Your task to perform on an android device: change your default location settings in chrome Image 0: 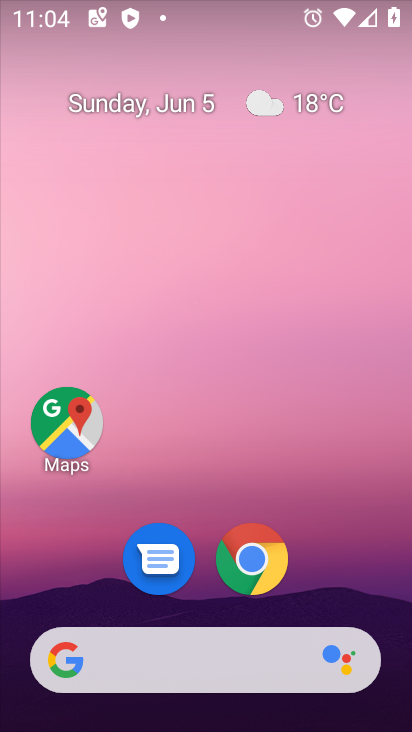
Step 0: click (248, 566)
Your task to perform on an android device: change your default location settings in chrome Image 1: 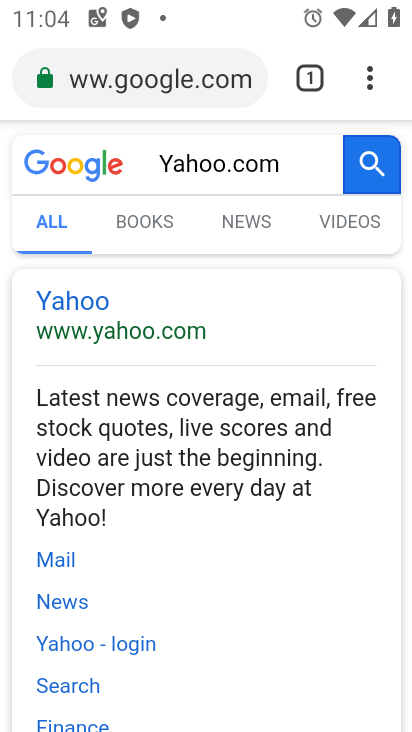
Step 1: click (373, 69)
Your task to perform on an android device: change your default location settings in chrome Image 2: 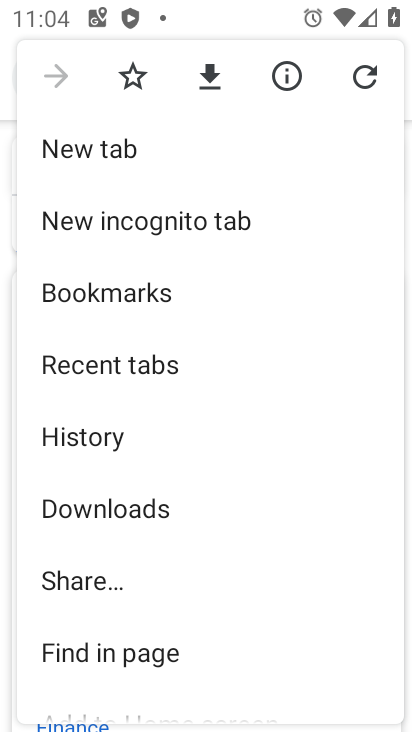
Step 2: drag from (220, 659) to (248, 263)
Your task to perform on an android device: change your default location settings in chrome Image 3: 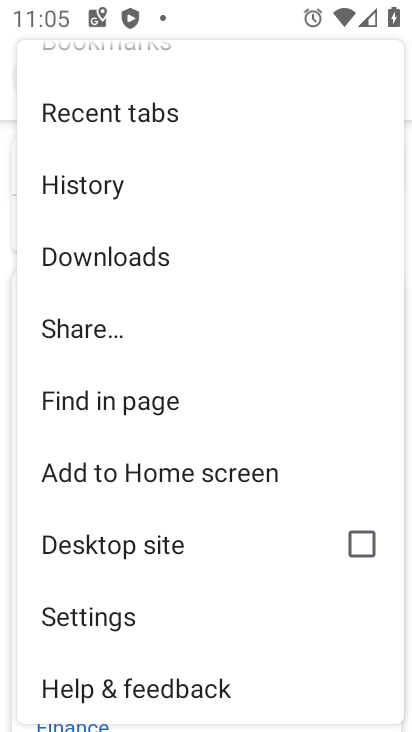
Step 3: click (89, 622)
Your task to perform on an android device: change your default location settings in chrome Image 4: 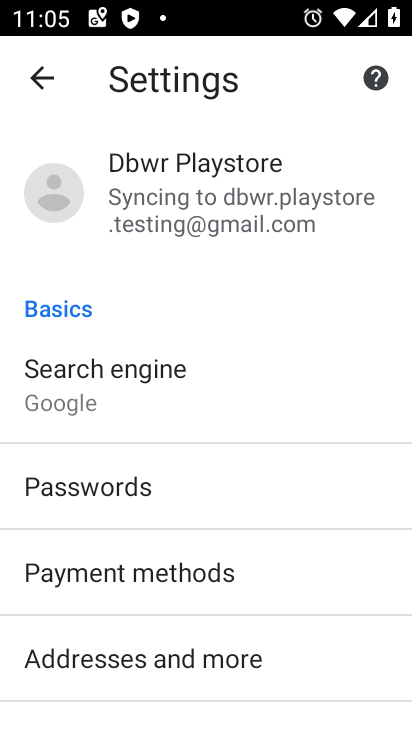
Step 4: drag from (296, 599) to (292, 255)
Your task to perform on an android device: change your default location settings in chrome Image 5: 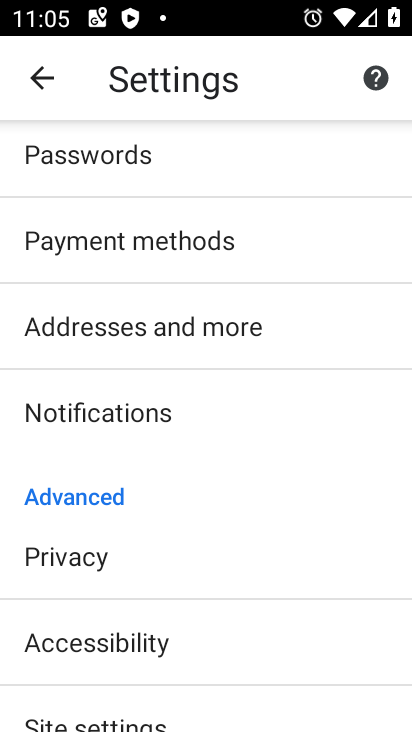
Step 5: drag from (175, 672) to (191, 371)
Your task to perform on an android device: change your default location settings in chrome Image 6: 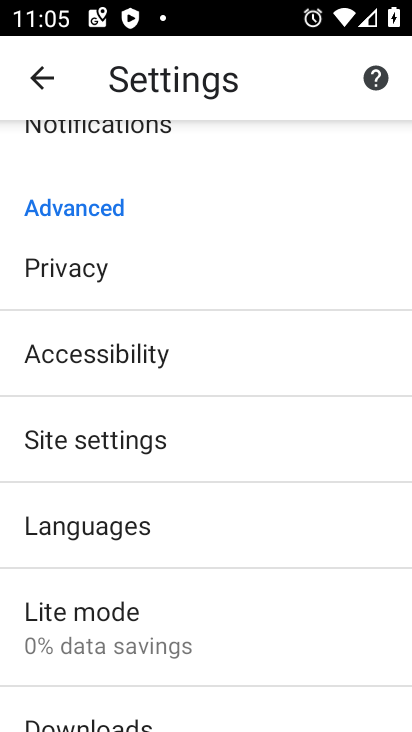
Step 6: click (131, 435)
Your task to perform on an android device: change your default location settings in chrome Image 7: 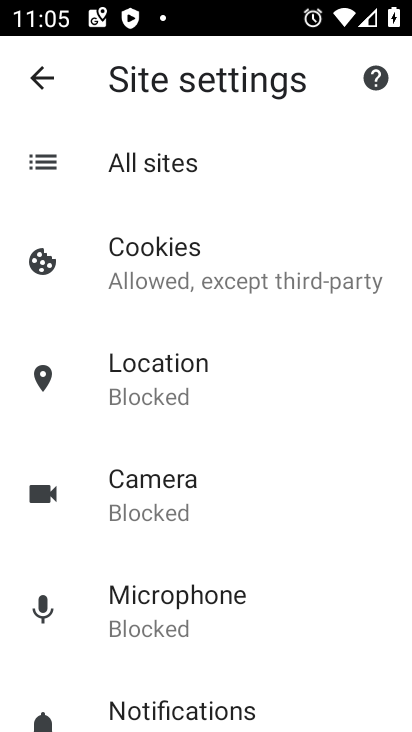
Step 7: click (175, 374)
Your task to perform on an android device: change your default location settings in chrome Image 8: 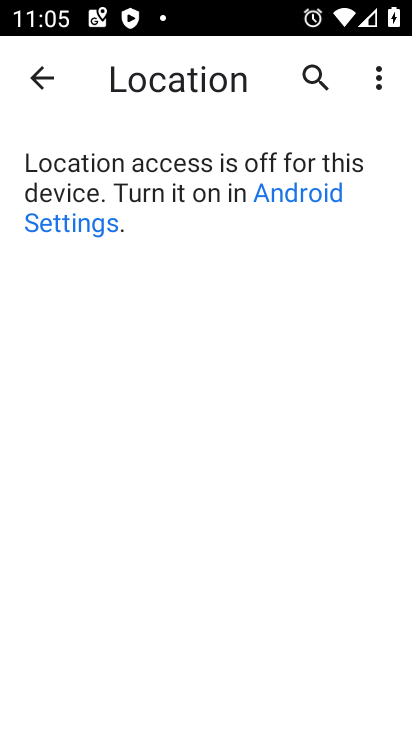
Step 8: click (44, 71)
Your task to perform on an android device: change your default location settings in chrome Image 9: 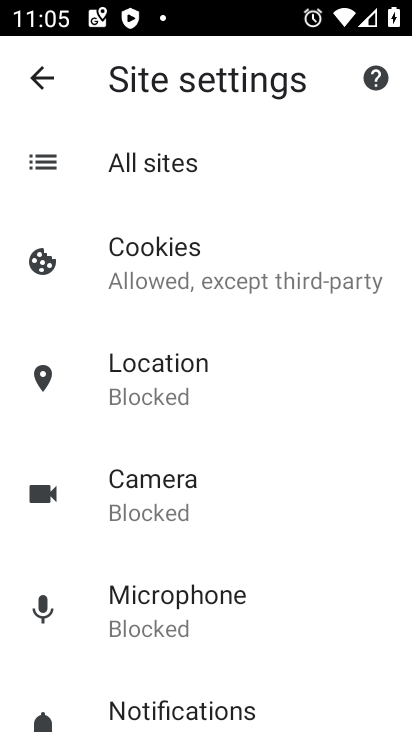
Step 9: click (158, 374)
Your task to perform on an android device: change your default location settings in chrome Image 10: 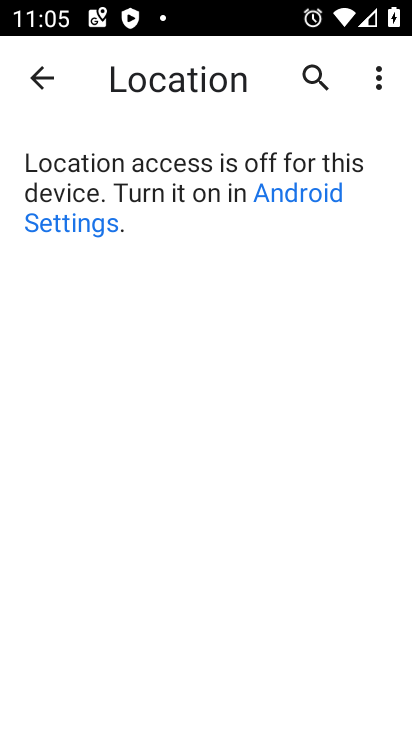
Step 10: click (376, 69)
Your task to perform on an android device: change your default location settings in chrome Image 11: 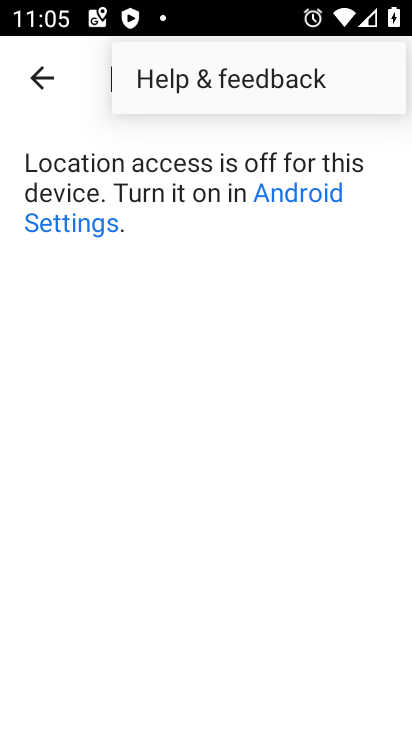
Step 11: click (22, 74)
Your task to perform on an android device: change your default location settings in chrome Image 12: 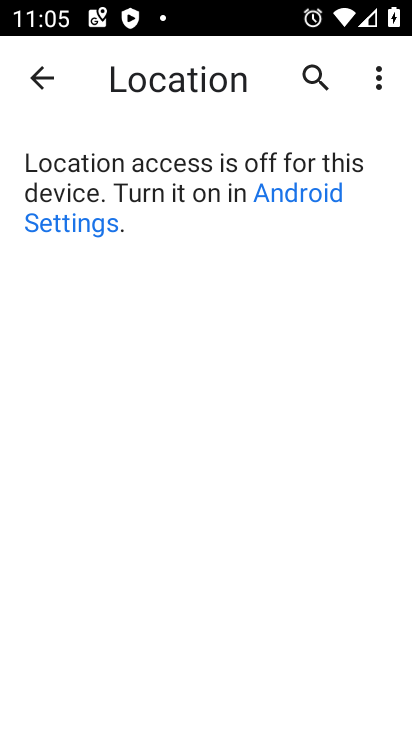
Step 12: click (37, 82)
Your task to perform on an android device: change your default location settings in chrome Image 13: 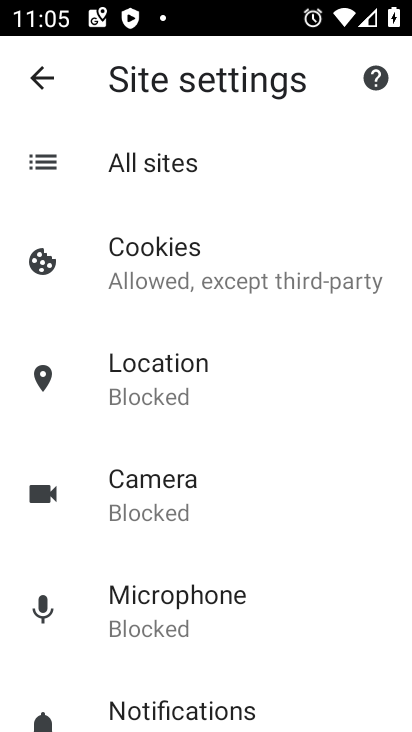
Step 13: click (145, 360)
Your task to perform on an android device: change your default location settings in chrome Image 14: 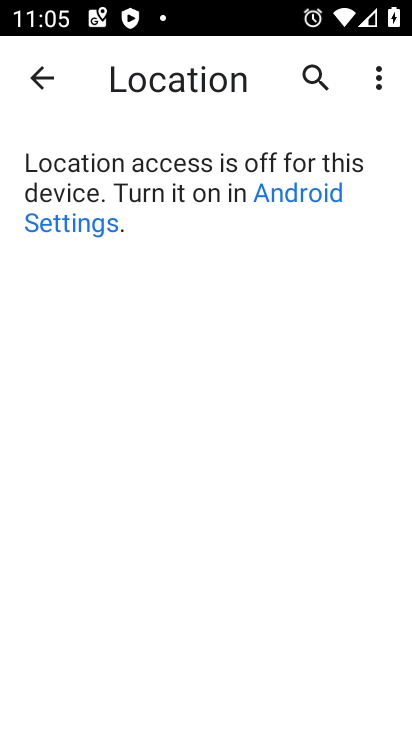
Step 14: click (286, 189)
Your task to perform on an android device: change your default location settings in chrome Image 15: 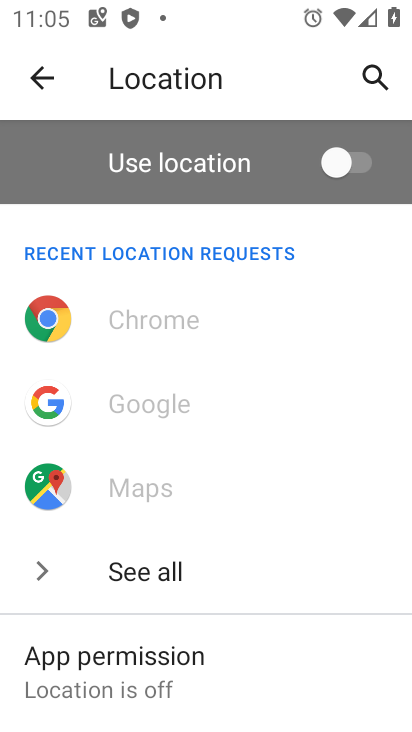
Step 15: click (358, 152)
Your task to perform on an android device: change your default location settings in chrome Image 16: 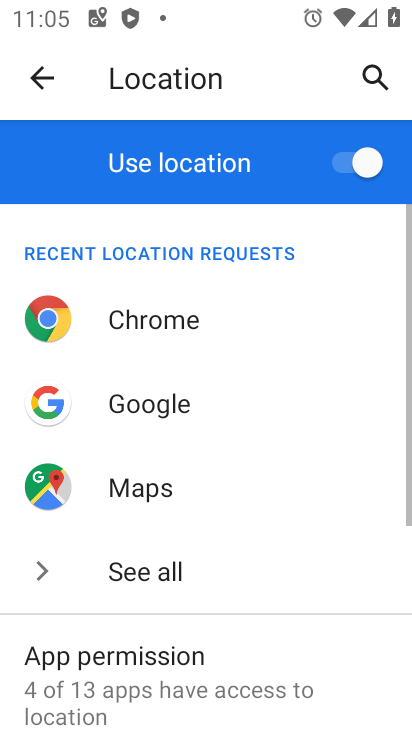
Step 16: task complete